Your task to perform on an android device: turn on the 24-hour format for clock Image 0: 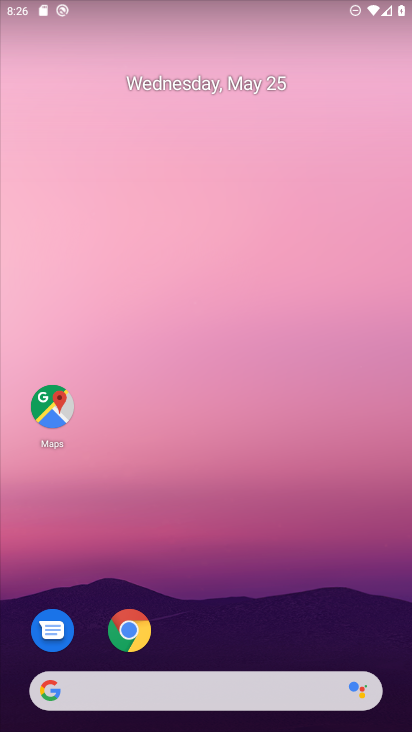
Step 0: drag from (270, 607) to (273, 151)
Your task to perform on an android device: turn on the 24-hour format for clock Image 1: 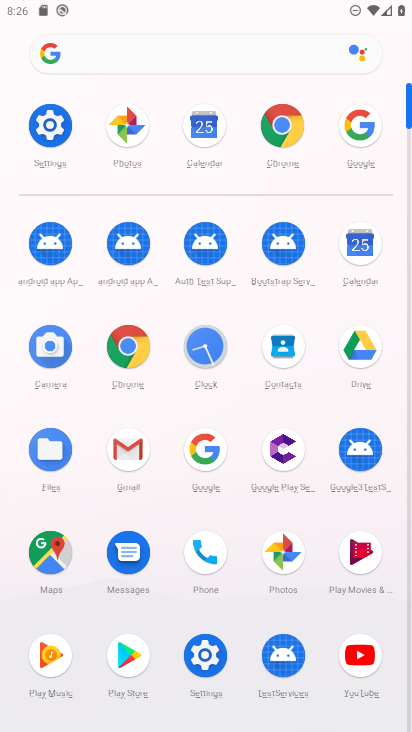
Step 1: click (210, 342)
Your task to perform on an android device: turn on the 24-hour format for clock Image 2: 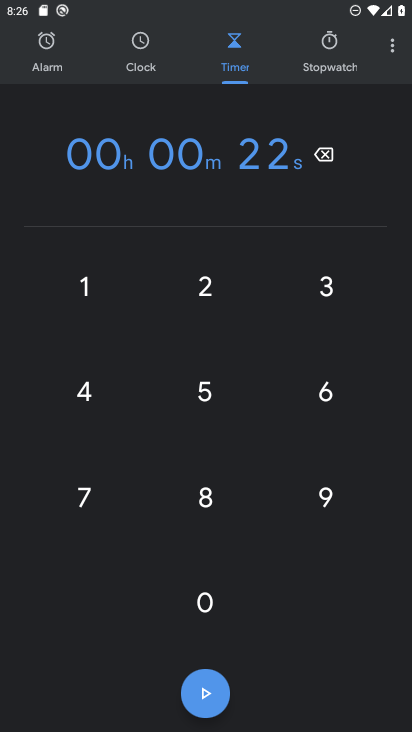
Step 2: click (394, 50)
Your task to perform on an android device: turn on the 24-hour format for clock Image 3: 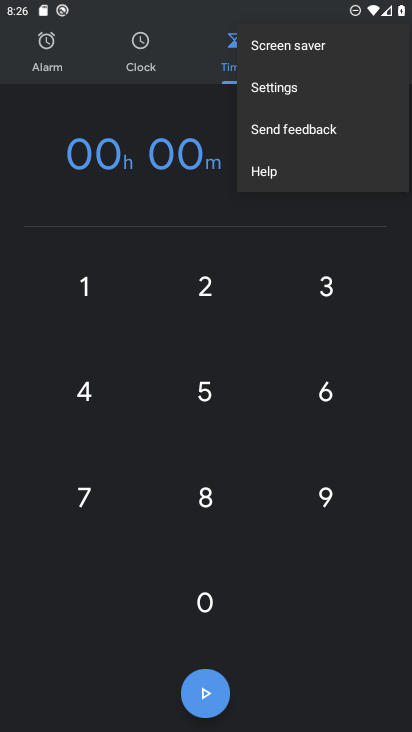
Step 3: click (275, 96)
Your task to perform on an android device: turn on the 24-hour format for clock Image 4: 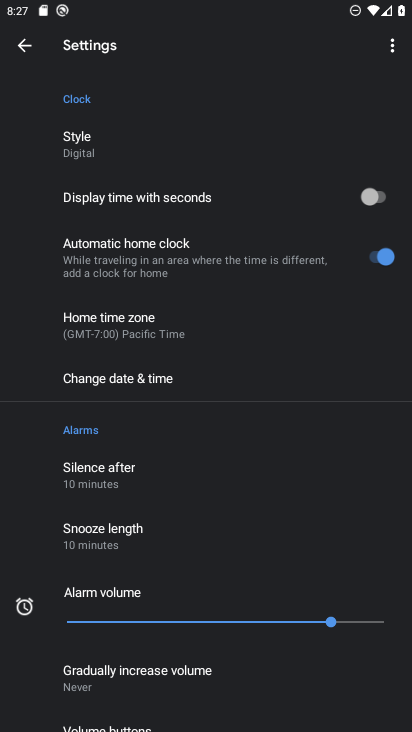
Step 4: click (184, 381)
Your task to perform on an android device: turn on the 24-hour format for clock Image 5: 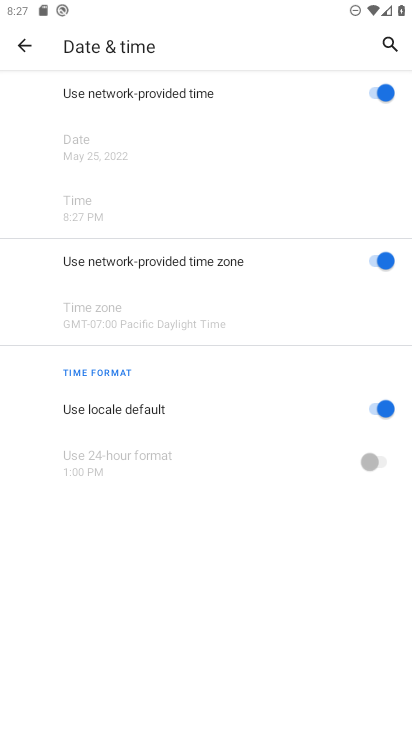
Step 5: click (377, 406)
Your task to perform on an android device: turn on the 24-hour format for clock Image 6: 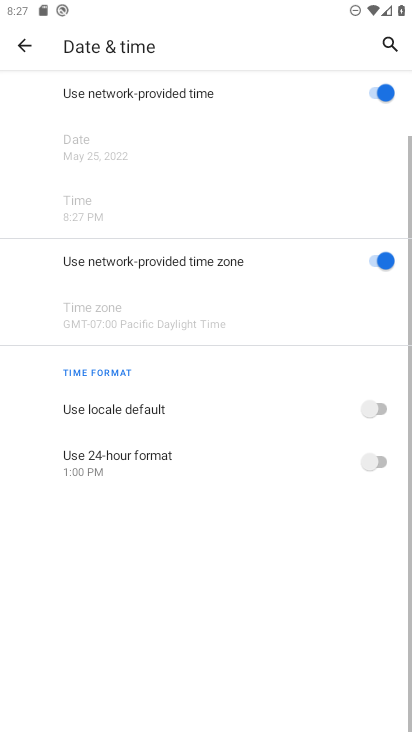
Step 6: click (375, 461)
Your task to perform on an android device: turn on the 24-hour format for clock Image 7: 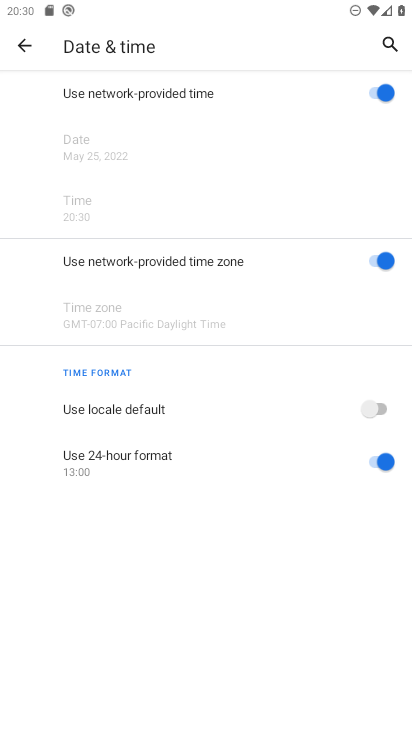
Step 7: task complete